Your task to perform on an android device: Go to network settings Image 0: 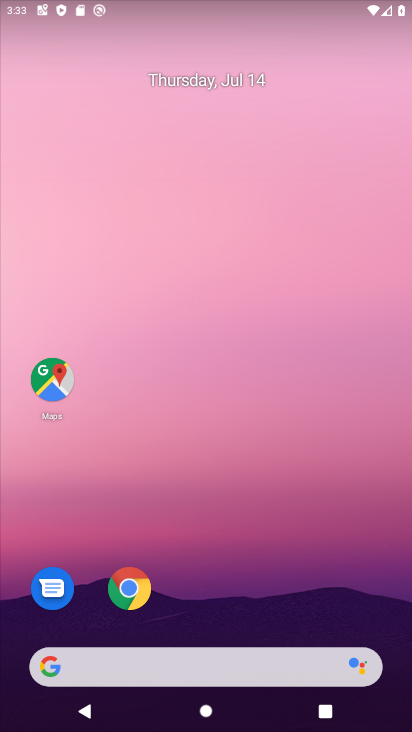
Step 0: drag from (269, 602) to (332, 47)
Your task to perform on an android device: Go to network settings Image 1: 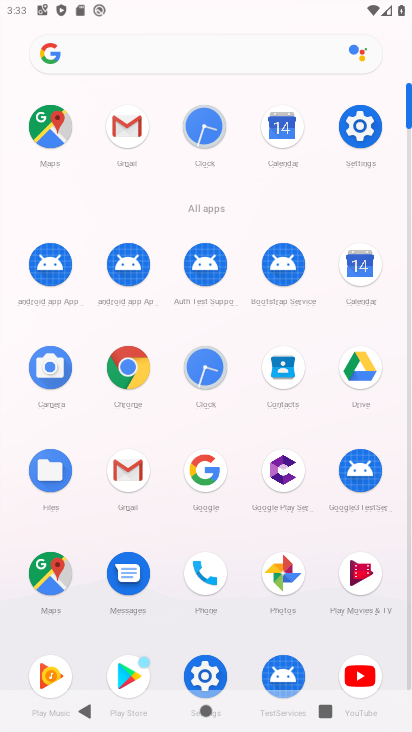
Step 1: click (355, 126)
Your task to perform on an android device: Go to network settings Image 2: 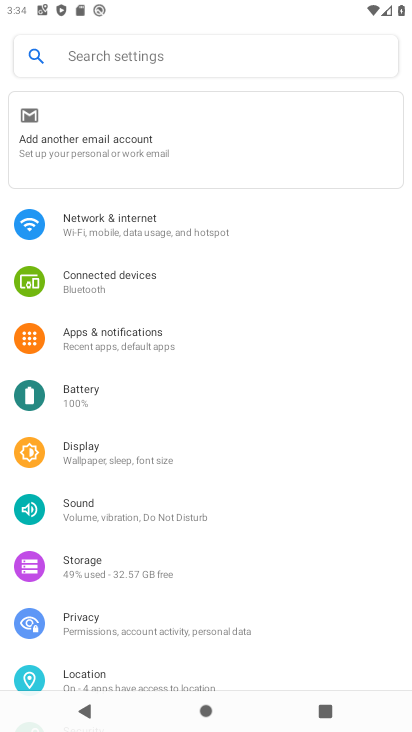
Step 2: click (111, 220)
Your task to perform on an android device: Go to network settings Image 3: 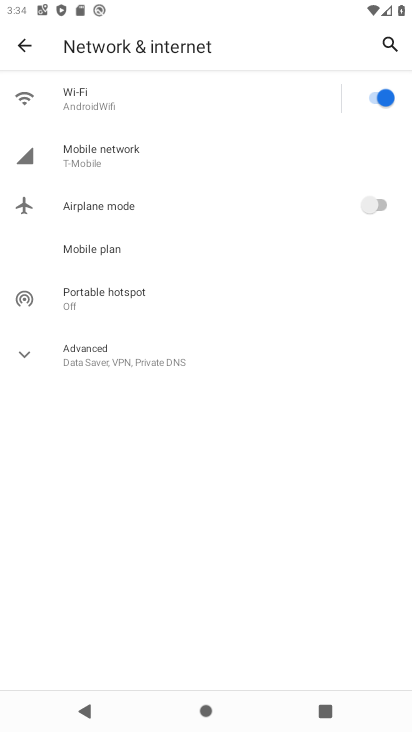
Step 3: task complete